Your task to perform on an android device: Do I have any events this weekend? Image 0: 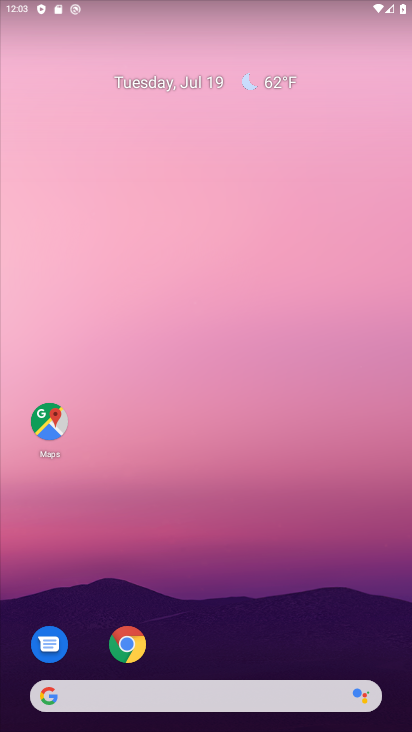
Step 0: drag from (233, 554) to (285, 51)
Your task to perform on an android device: Do I have any events this weekend? Image 1: 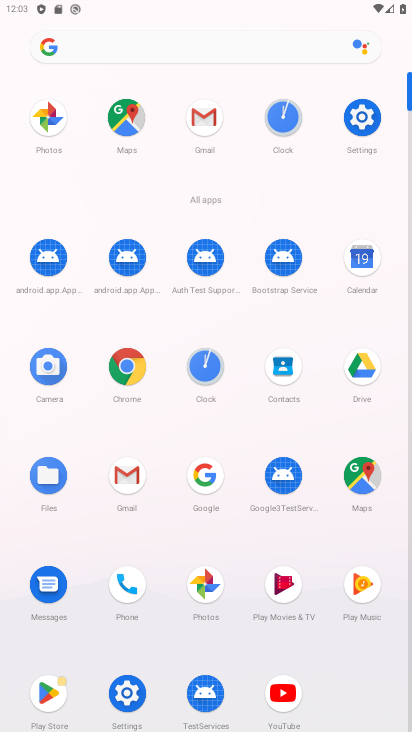
Step 1: click (359, 259)
Your task to perform on an android device: Do I have any events this weekend? Image 2: 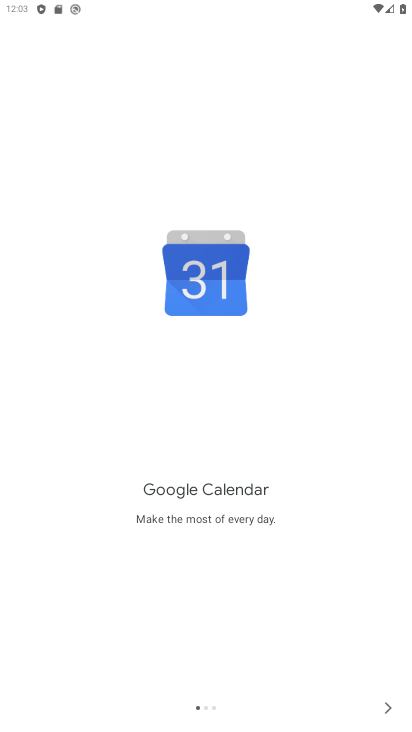
Step 2: click (386, 704)
Your task to perform on an android device: Do I have any events this weekend? Image 3: 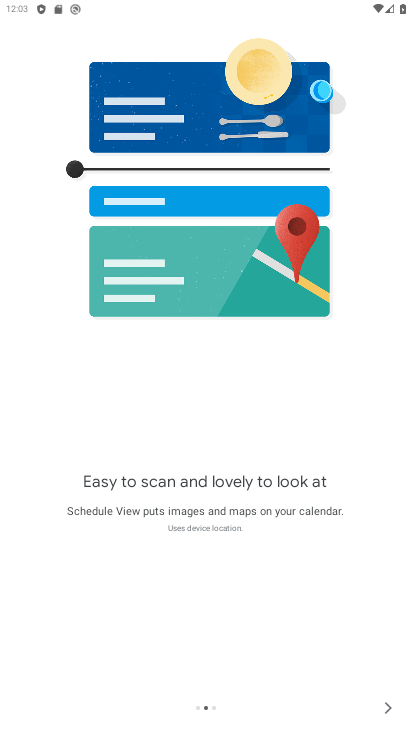
Step 3: click (386, 704)
Your task to perform on an android device: Do I have any events this weekend? Image 4: 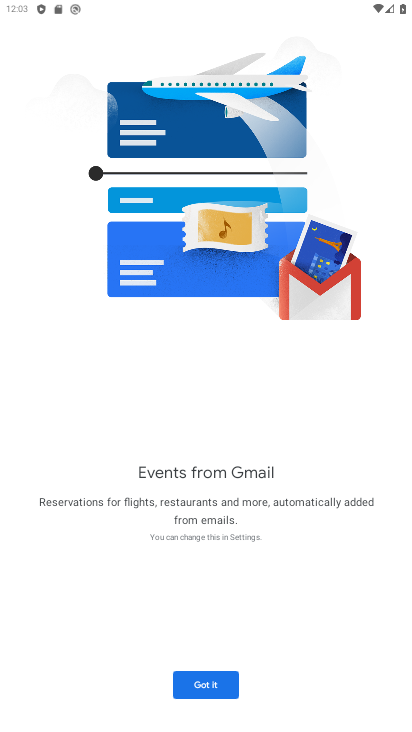
Step 4: click (183, 687)
Your task to perform on an android device: Do I have any events this weekend? Image 5: 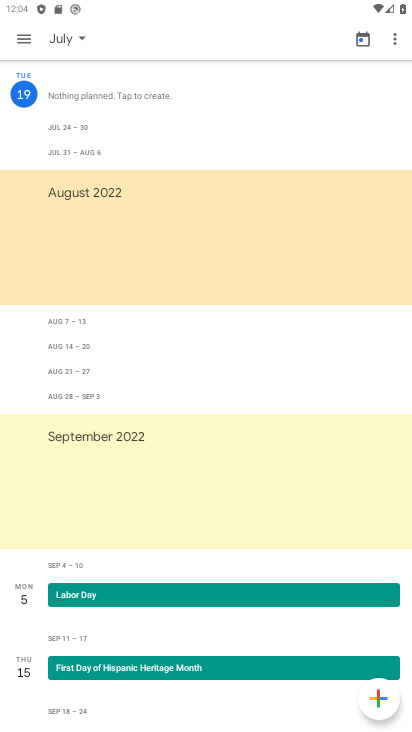
Step 5: click (20, 38)
Your task to perform on an android device: Do I have any events this weekend? Image 6: 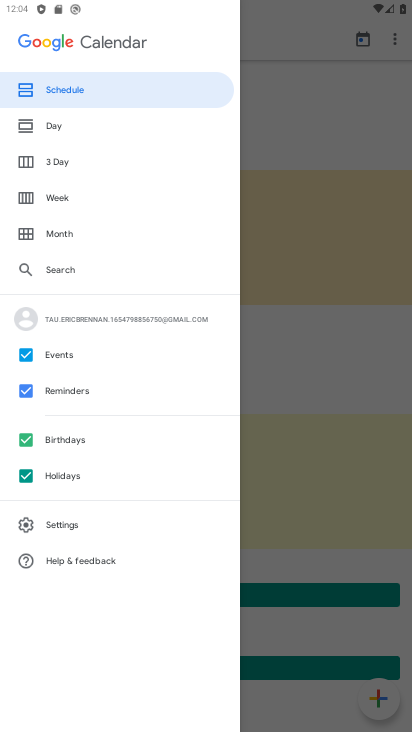
Step 6: click (54, 197)
Your task to perform on an android device: Do I have any events this weekend? Image 7: 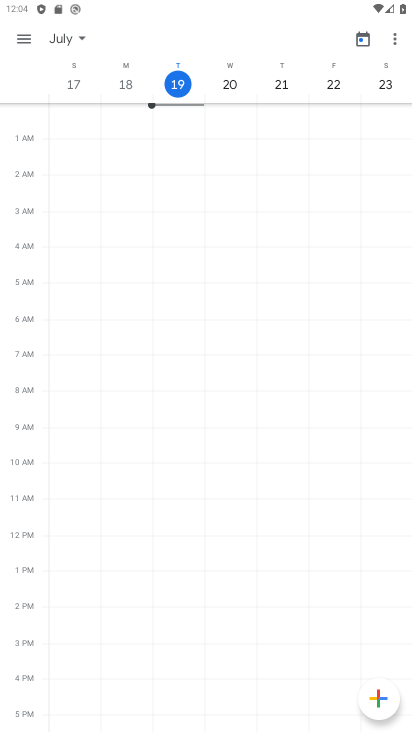
Step 7: task complete